Your task to perform on an android device: toggle notifications settings in the gmail app Image 0: 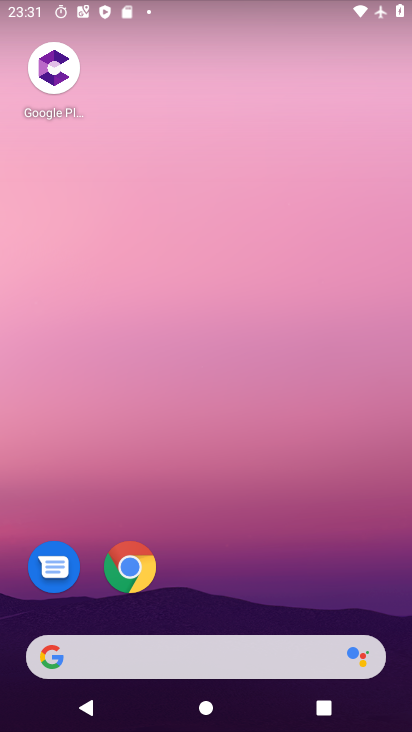
Step 0: drag from (305, 492) to (346, 397)
Your task to perform on an android device: toggle notifications settings in the gmail app Image 1: 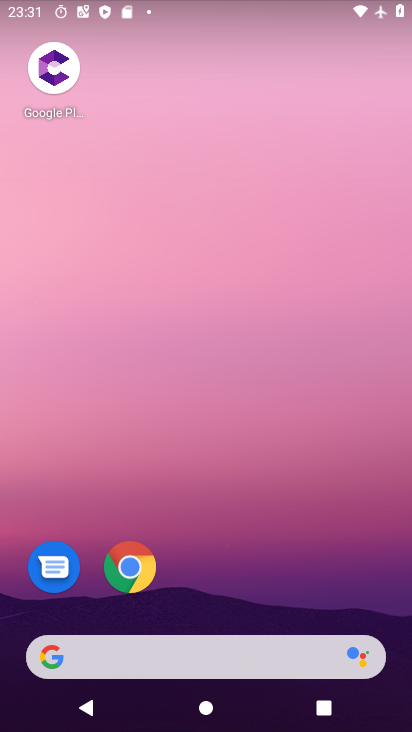
Step 1: drag from (232, 539) to (264, 193)
Your task to perform on an android device: toggle notifications settings in the gmail app Image 2: 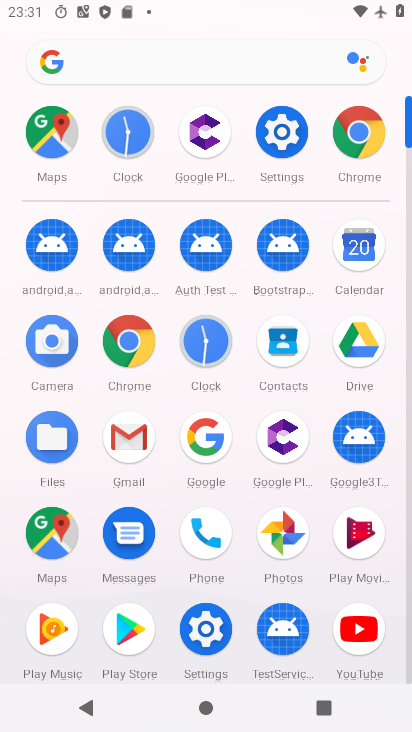
Step 2: click (125, 426)
Your task to perform on an android device: toggle notifications settings in the gmail app Image 3: 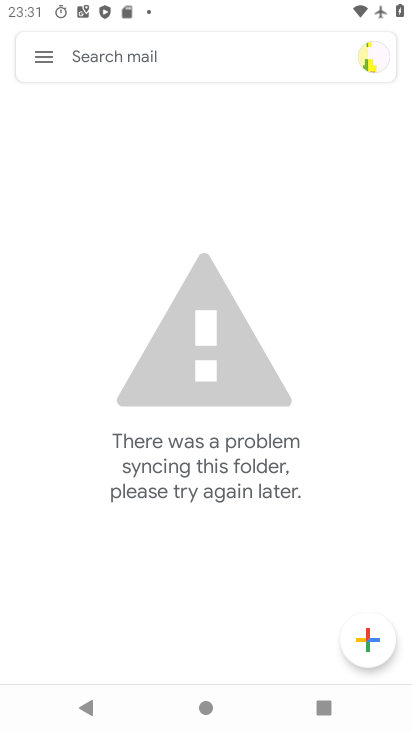
Step 3: click (39, 62)
Your task to perform on an android device: toggle notifications settings in the gmail app Image 4: 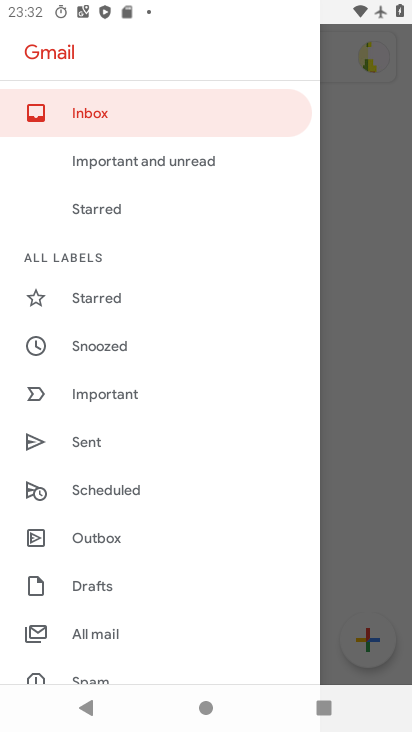
Step 4: drag from (164, 593) to (209, 273)
Your task to perform on an android device: toggle notifications settings in the gmail app Image 5: 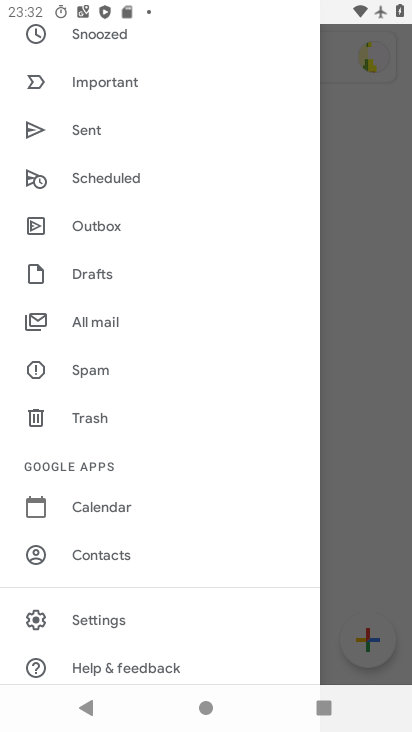
Step 5: click (111, 616)
Your task to perform on an android device: toggle notifications settings in the gmail app Image 6: 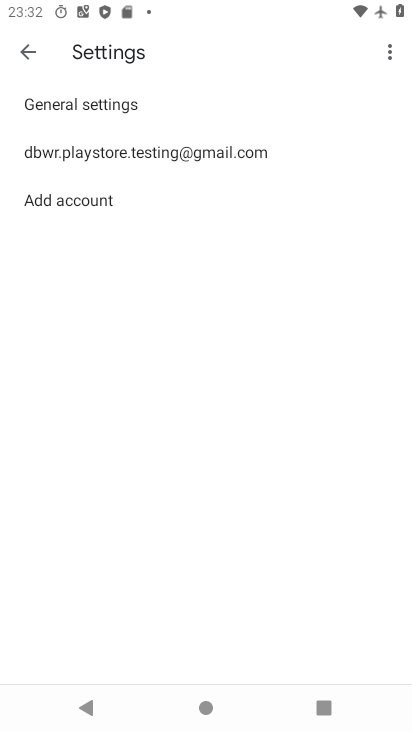
Step 6: click (252, 145)
Your task to perform on an android device: toggle notifications settings in the gmail app Image 7: 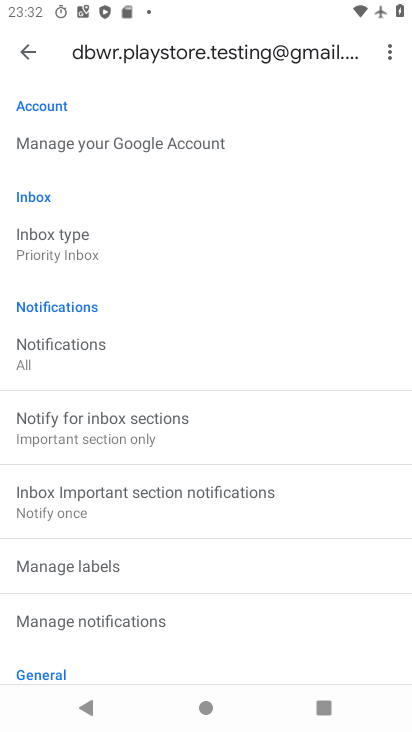
Step 7: drag from (202, 582) to (229, 403)
Your task to perform on an android device: toggle notifications settings in the gmail app Image 8: 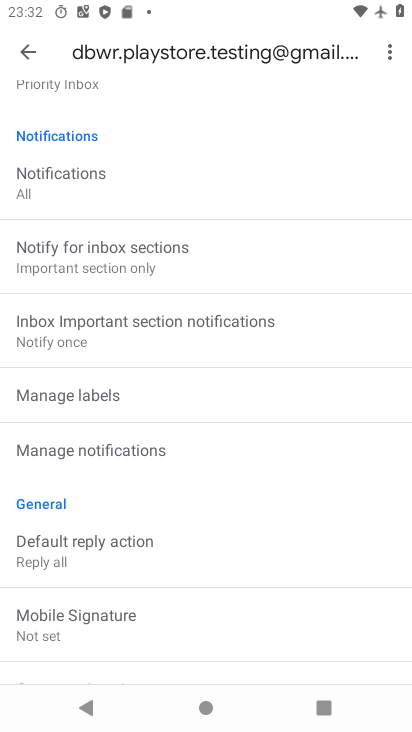
Step 8: click (57, 192)
Your task to perform on an android device: toggle notifications settings in the gmail app Image 9: 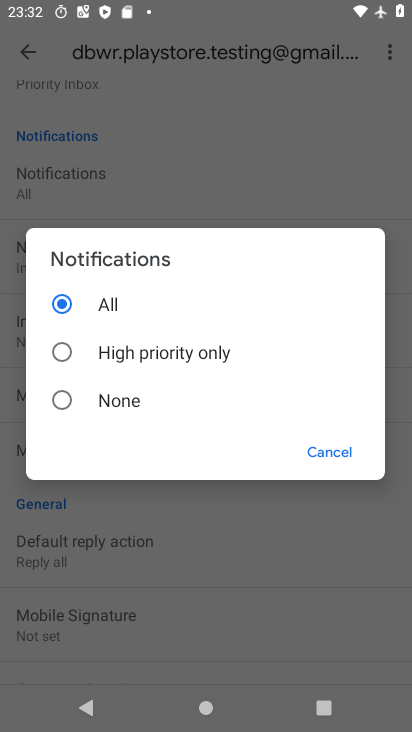
Step 9: click (126, 416)
Your task to perform on an android device: toggle notifications settings in the gmail app Image 10: 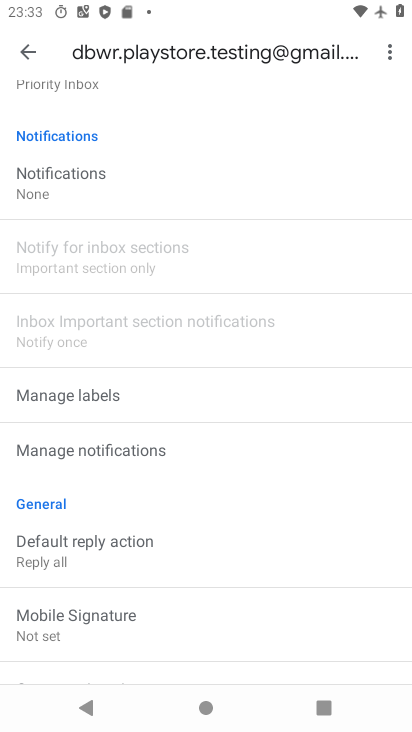
Step 10: task complete